Your task to perform on an android device: Open CNN.com Image 0: 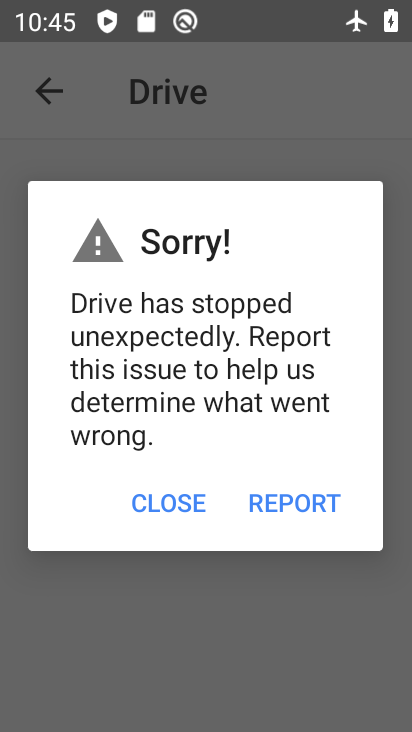
Step 0: press home button
Your task to perform on an android device: Open CNN.com Image 1: 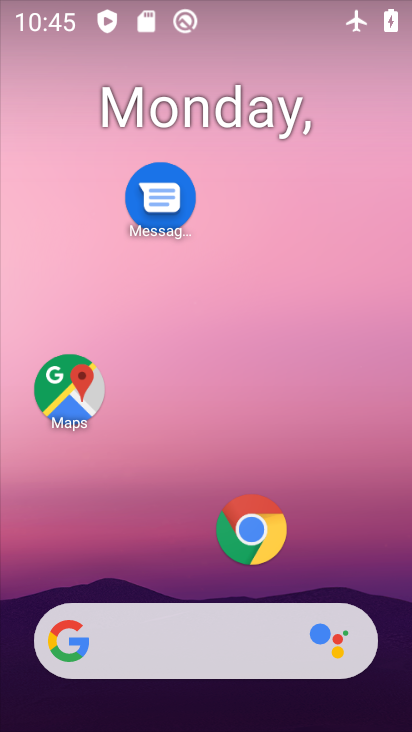
Step 1: drag from (200, 499) to (277, 179)
Your task to perform on an android device: Open CNN.com Image 2: 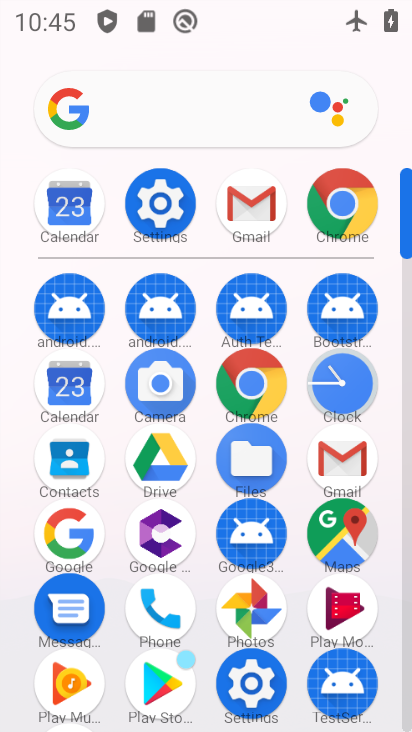
Step 2: click (259, 397)
Your task to perform on an android device: Open CNN.com Image 3: 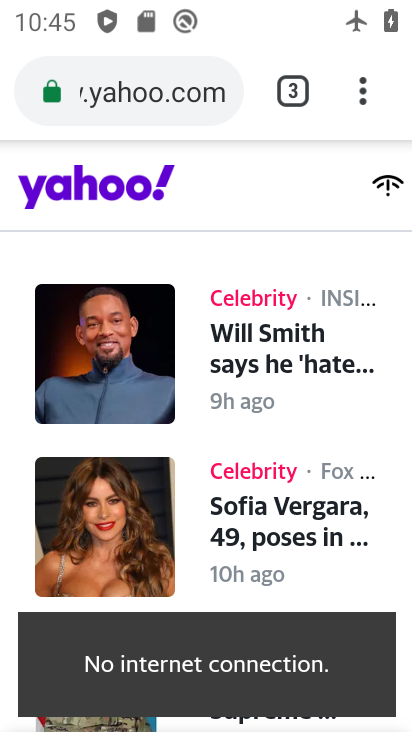
Step 3: click (289, 94)
Your task to perform on an android device: Open CNN.com Image 4: 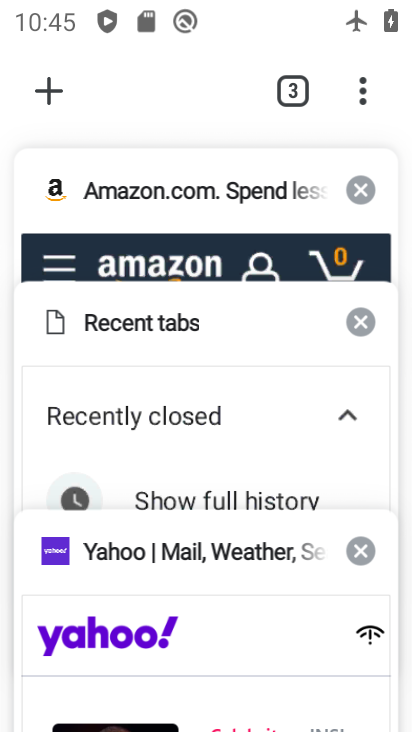
Step 4: click (53, 94)
Your task to perform on an android device: Open CNN.com Image 5: 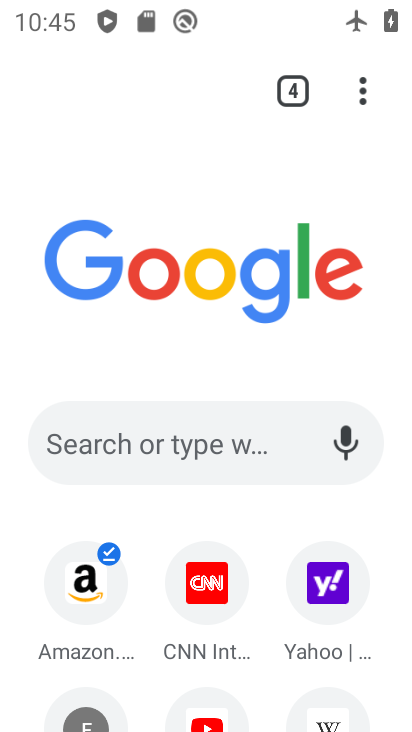
Step 5: click (218, 612)
Your task to perform on an android device: Open CNN.com Image 6: 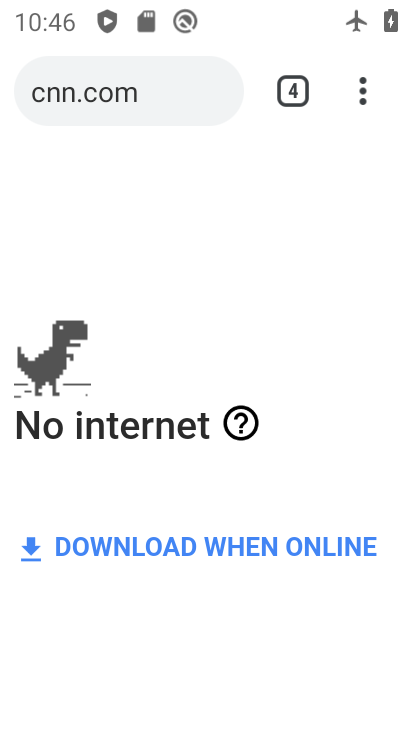
Step 6: task complete